Your task to perform on an android device: Go to eBay Image 0: 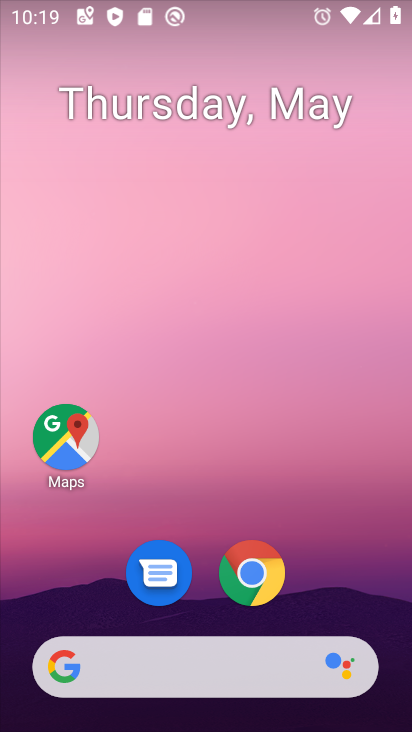
Step 0: click (256, 554)
Your task to perform on an android device: Go to eBay Image 1: 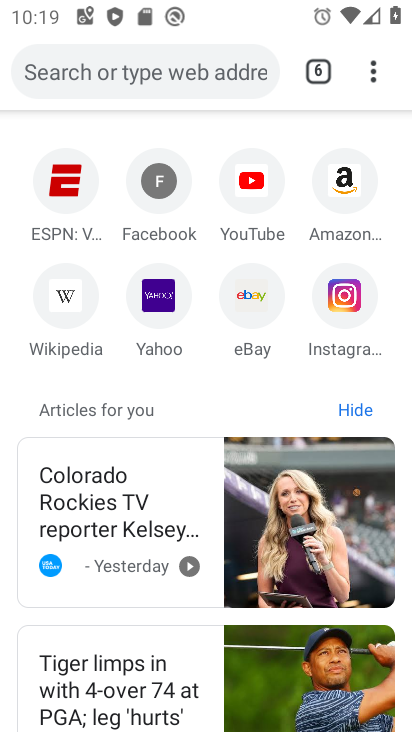
Step 1: click (306, 59)
Your task to perform on an android device: Go to eBay Image 2: 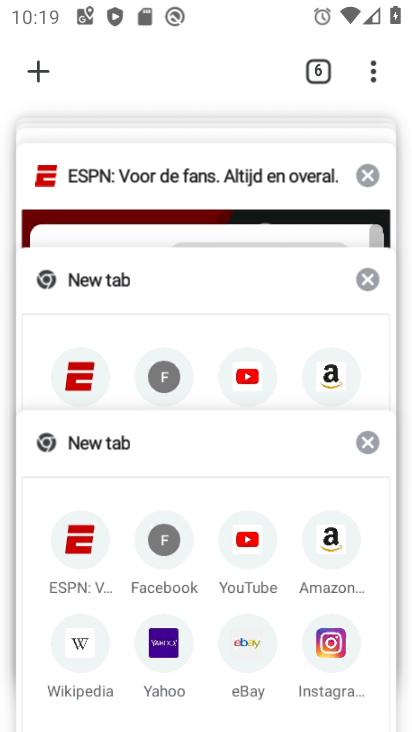
Step 2: click (42, 77)
Your task to perform on an android device: Go to eBay Image 3: 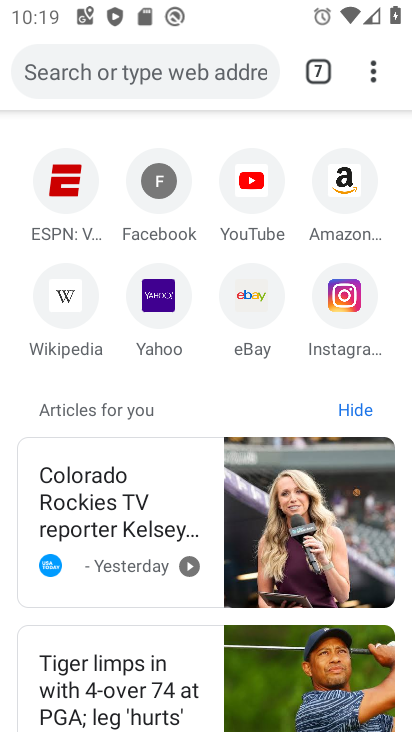
Step 3: click (239, 295)
Your task to perform on an android device: Go to eBay Image 4: 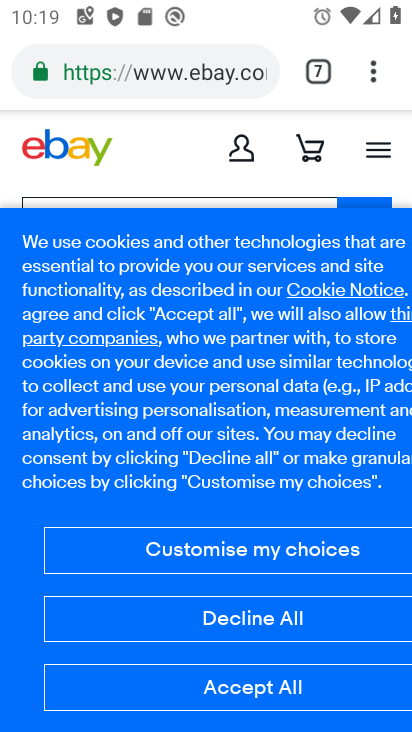
Step 4: task complete